Your task to perform on an android device: open app "Instagram" (install if not already installed) Image 0: 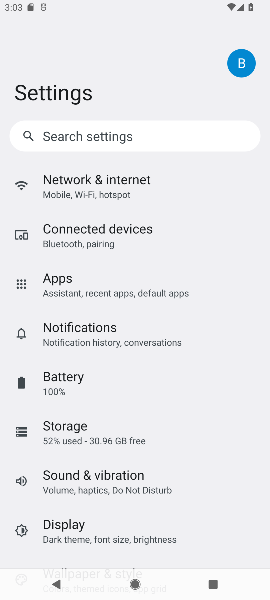
Step 0: press home button
Your task to perform on an android device: open app "Instagram" (install if not already installed) Image 1: 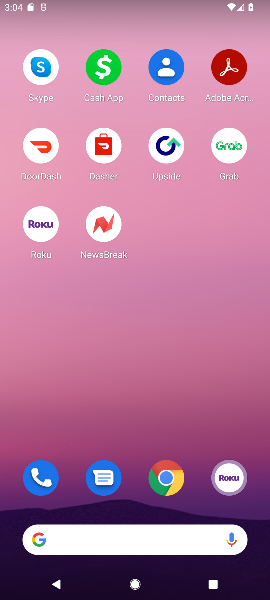
Step 1: press home button
Your task to perform on an android device: open app "Instagram" (install if not already installed) Image 2: 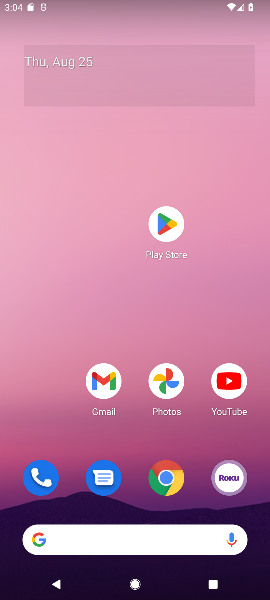
Step 2: click (166, 226)
Your task to perform on an android device: open app "Instagram" (install if not already installed) Image 3: 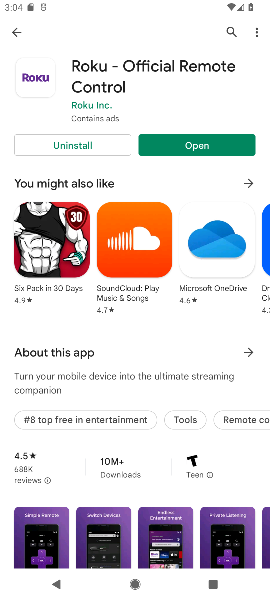
Step 3: click (223, 28)
Your task to perform on an android device: open app "Instagram" (install if not already installed) Image 4: 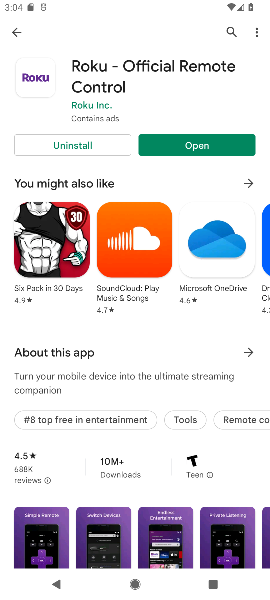
Step 4: click (232, 27)
Your task to perform on an android device: open app "Instagram" (install if not already installed) Image 5: 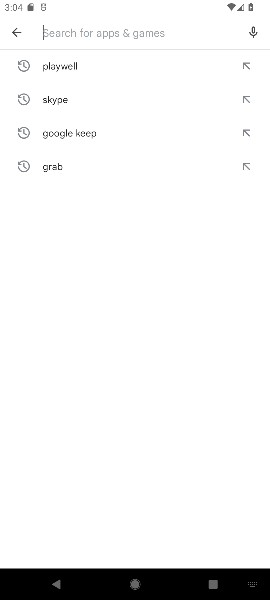
Step 5: type "Instagram"
Your task to perform on an android device: open app "Instagram" (install if not already installed) Image 6: 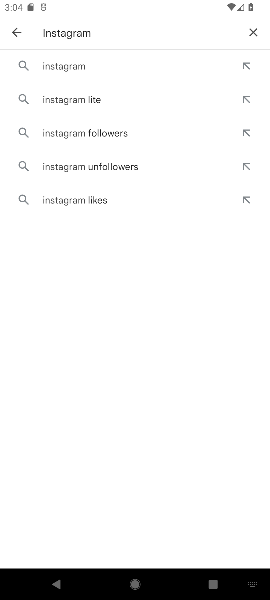
Step 6: click (73, 69)
Your task to perform on an android device: open app "Instagram" (install if not already installed) Image 7: 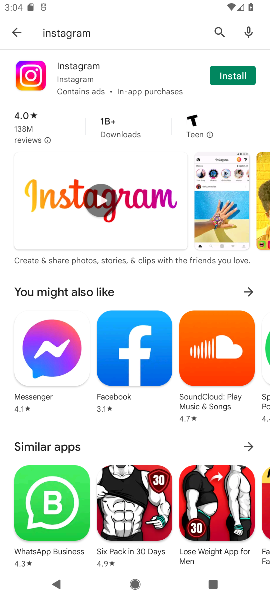
Step 7: click (248, 73)
Your task to perform on an android device: open app "Instagram" (install if not already installed) Image 8: 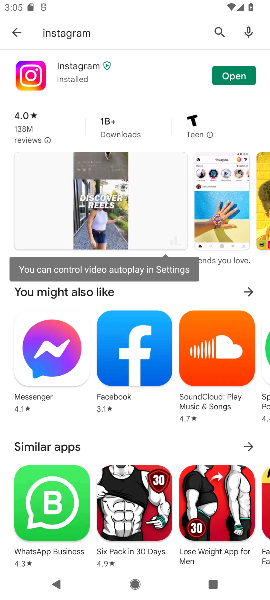
Step 8: click (233, 78)
Your task to perform on an android device: open app "Instagram" (install if not already installed) Image 9: 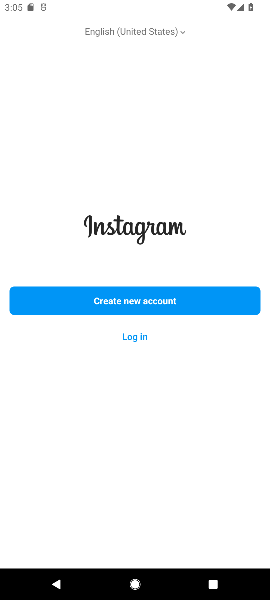
Step 9: task complete